Your task to perform on an android device: Go to ESPN.com Image 0: 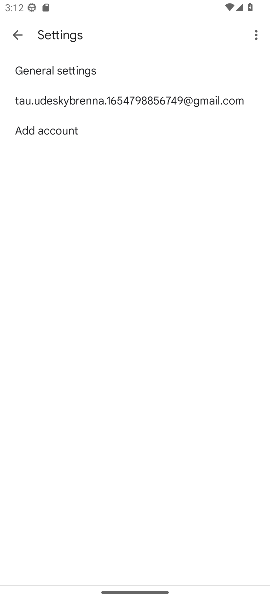
Step 0: press home button
Your task to perform on an android device: Go to ESPN.com Image 1: 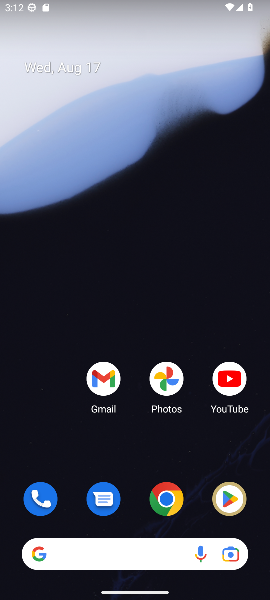
Step 1: click (163, 495)
Your task to perform on an android device: Go to ESPN.com Image 2: 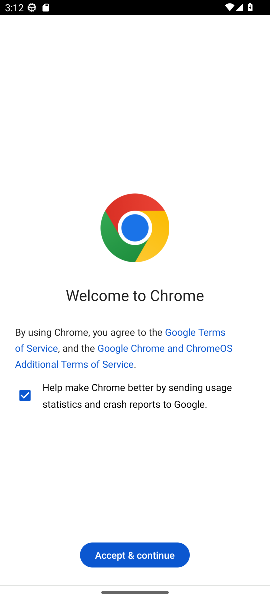
Step 2: click (135, 552)
Your task to perform on an android device: Go to ESPN.com Image 3: 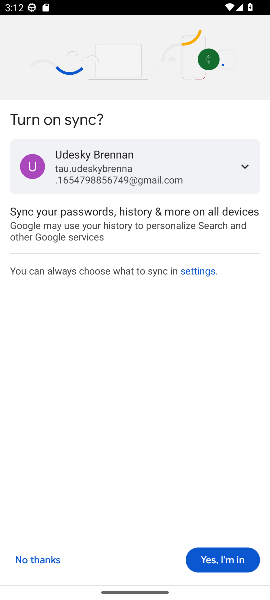
Step 3: click (227, 553)
Your task to perform on an android device: Go to ESPN.com Image 4: 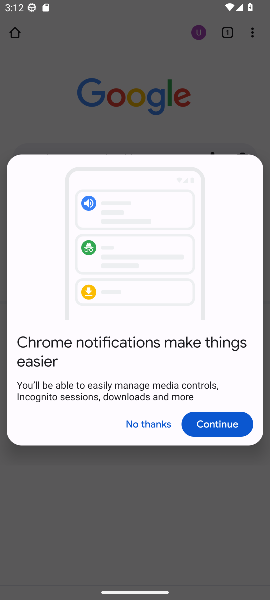
Step 4: click (235, 431)
Your task to perform on an android device: Go to ESPN.com Image 5: 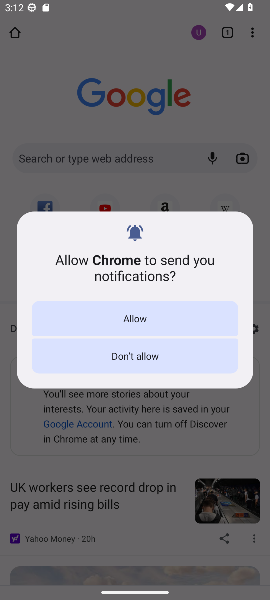
Step 5: click (162, 314)
Your task to perform on an android device: Go to ESPN.com Image 6: 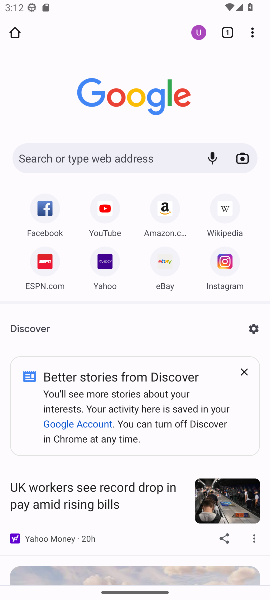
Step 6: click (159, 158)
Your task to perform on an android device: Go to ESPN.com Image 7: 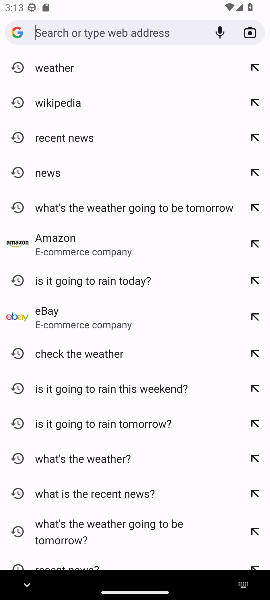
Step 7: type "ESPN.com"
Your task to perform on an android device: Go to ESPN.com Image 8: 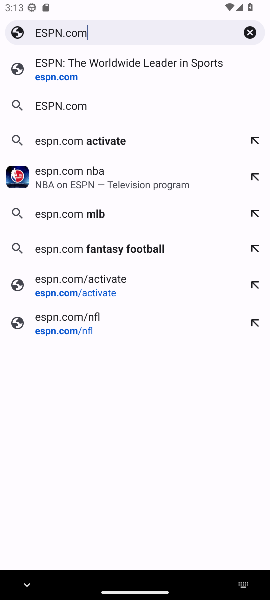
Step 8: click (65, 74)
Your task to perform on an android device: Go to ESPN.com Image 9: 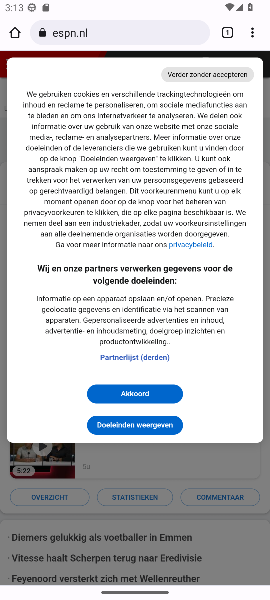
Step 9: click (151, 391)
Your task to perform on an android device: Go to ESPN.com Image 10: 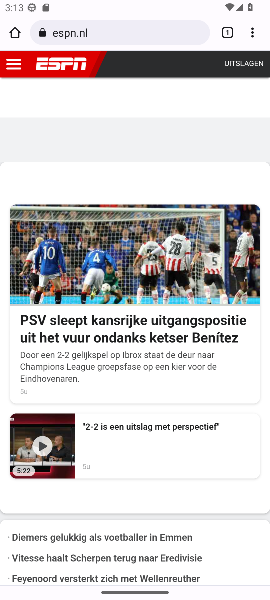
Step 10: task complete